Your task to perform on an android device: add a label to a message in the gmail app Image 0: 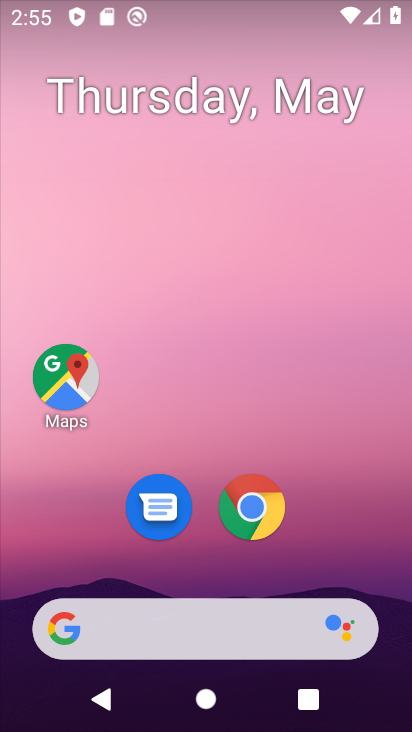
Step 0: drag from (289, 534) to (350, 113)
Your task to perform on an android device: add a label to a message in the gmail app Image 1: 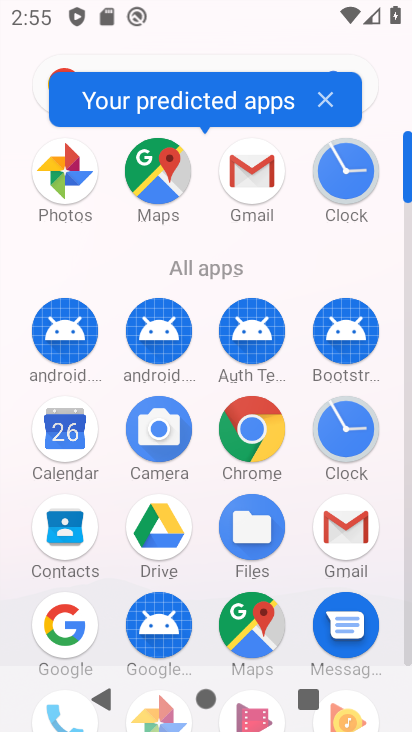
Step 1: click (348, 528)
Your task to perform on an android device: add a label to a message in the gmail app Image 2: 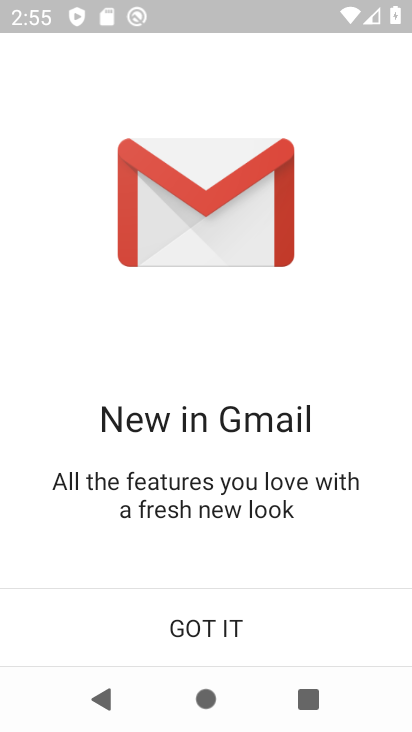
Step 2: click (172, 625)
Your task to perform on an android device: add a label to a message in the gmail app Image 3: 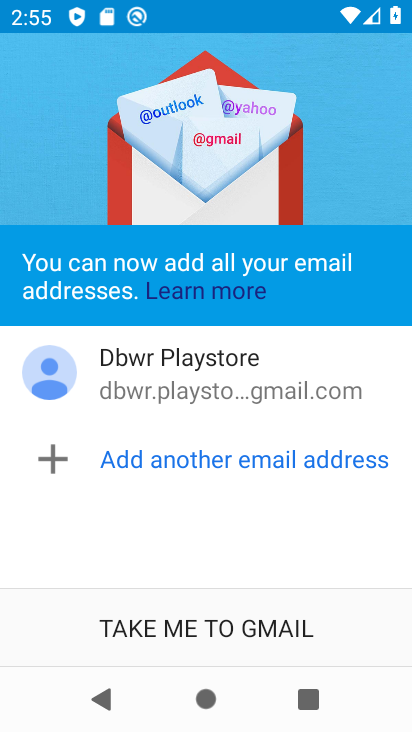
Step 3: click (202, 623)
Your task to perform on an android device: add a label to a message in the gmail app Image 4: 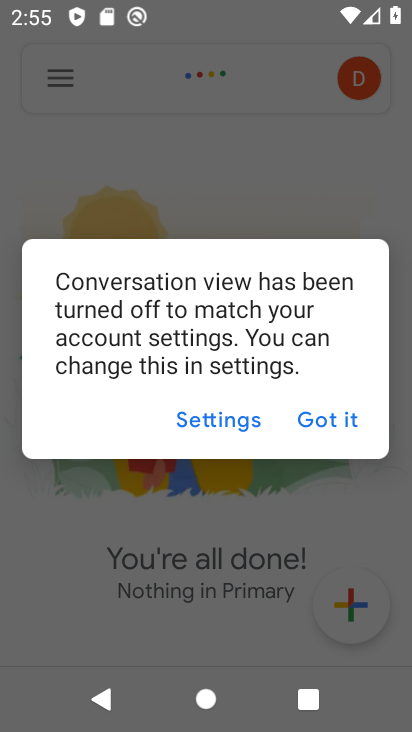
Step 4: click (299, 416)
Your task to perform on an android device: add a label to a message in the gmail app Image 5: 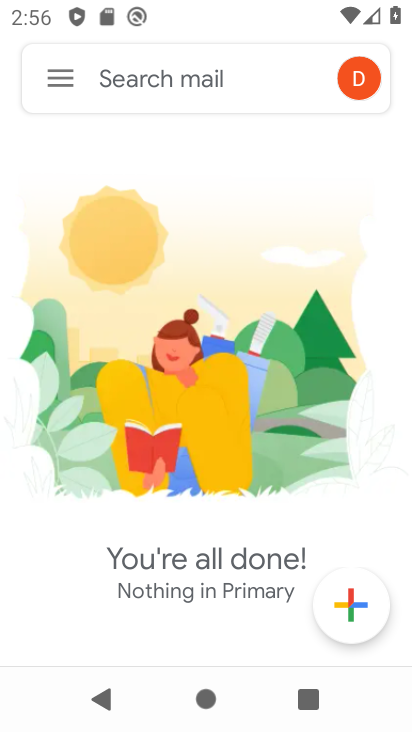
Step 5: task complete